Your task to perform on an android device: turn off notifications in google photos Image 0: 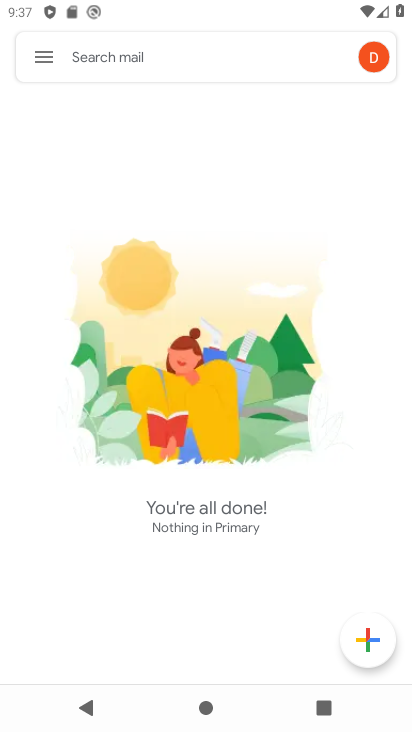
Step 0: press home button
Your task to perform on an android device: turn off notifications in google photos Image 1: 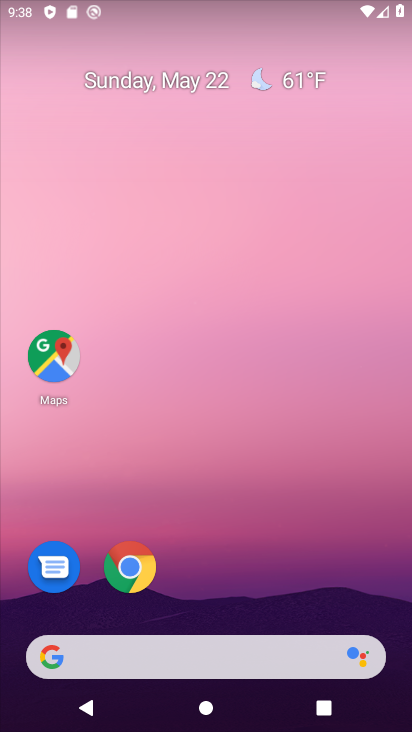
Step 1: drag from (232, 623) to (208, 44)
Your task to perform on an android device: turn off notifications in google photos Image 2: 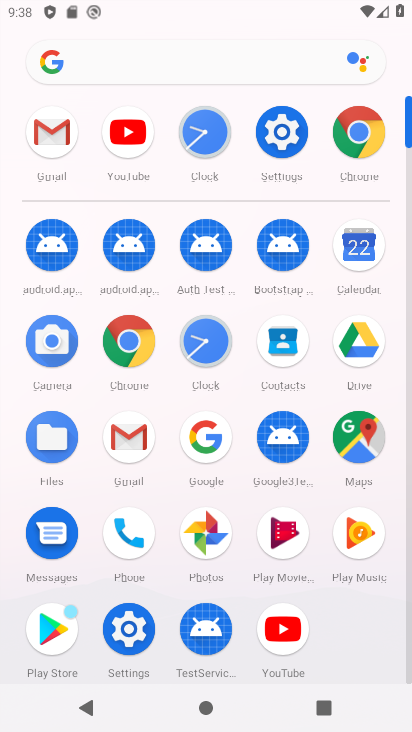
Step 2: click (216, 528)
Your task to perform on an android device: turn off notifications in google photos Image 3: 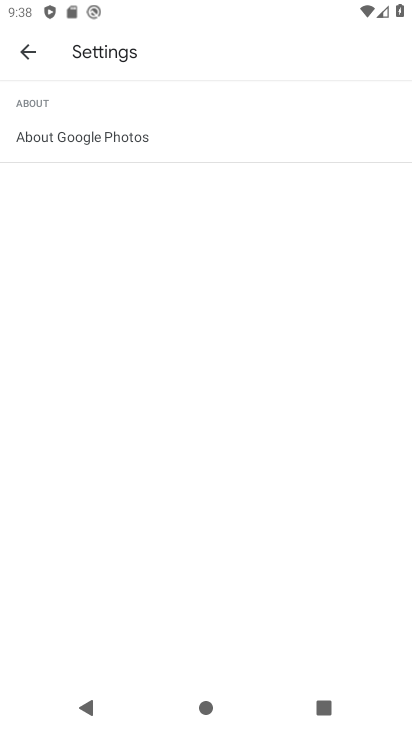
Step 3: click (37, 31)
Your task to perform on an android device: turn off notifications in google photos Image 4: 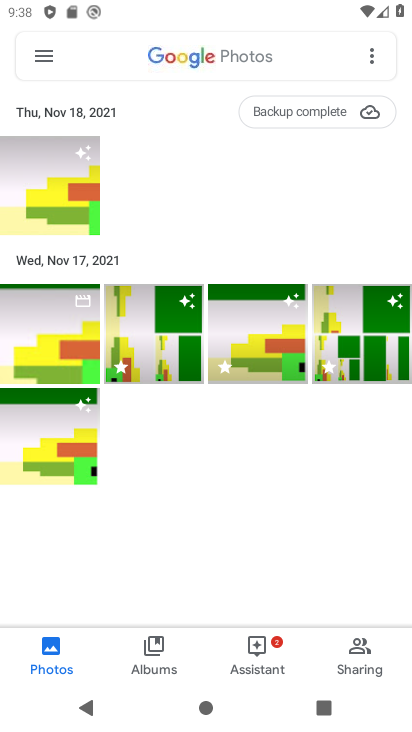
Step 4: click (51, 54)
Your task to perform on an android device: turn off notifications in google photos Image 5: 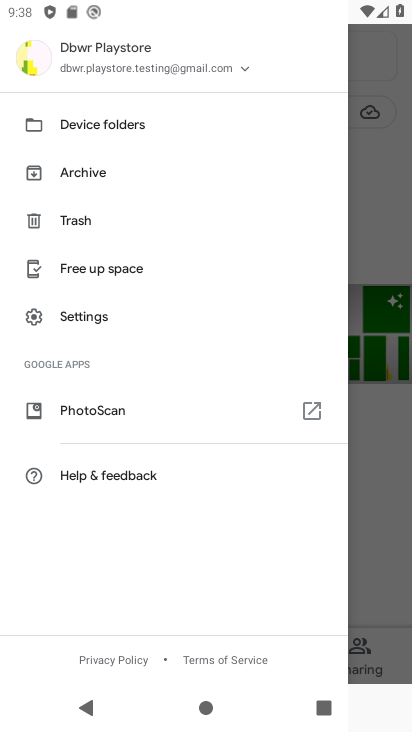
Step 5: click (64, 314)
Your task to perform on an android device: turn off notifications in google photos Image 6: 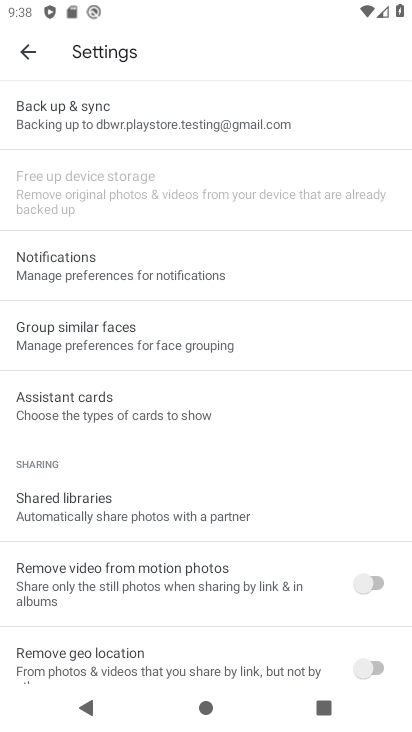
Step 6: click (76, 268)
Your task to perform on an android device: turn off notifications in google photos Image 7: 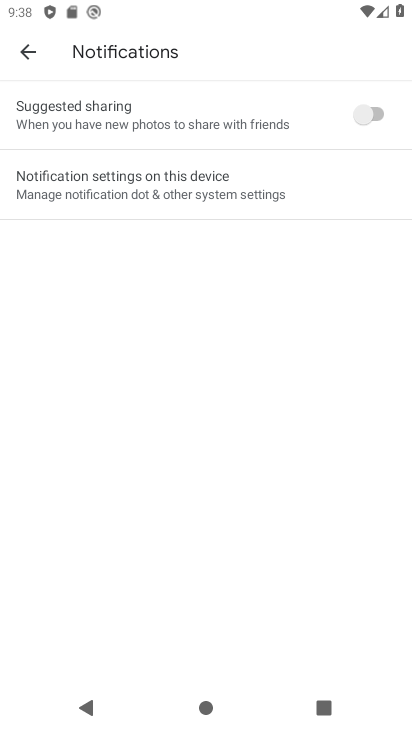
Step 7: click (86, 190)
Your task to perform on an android device: turn off notifications in google photos Image 8: 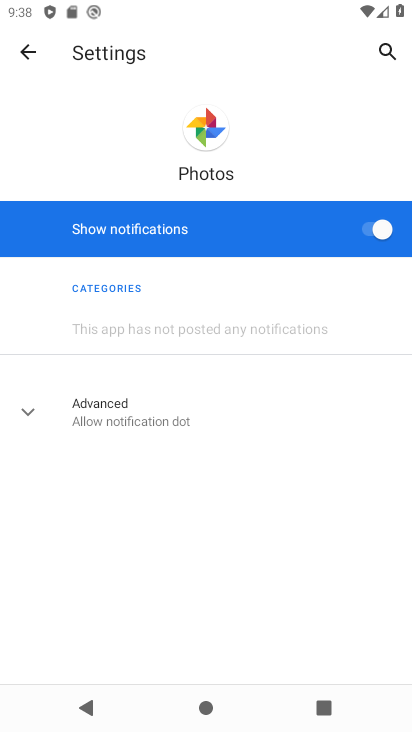
Step 8: click (362, 228)
Your task to perform on an android device: turn off notifications in google photos Image 9: 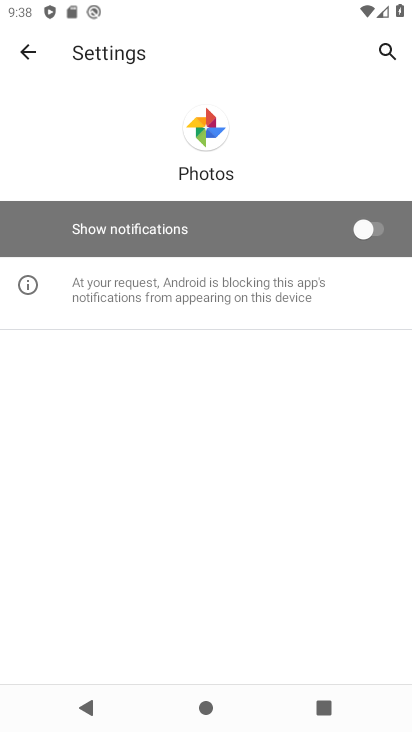
Step 9: task complete